Your task to perform on an android device: Check the weather Image 0: 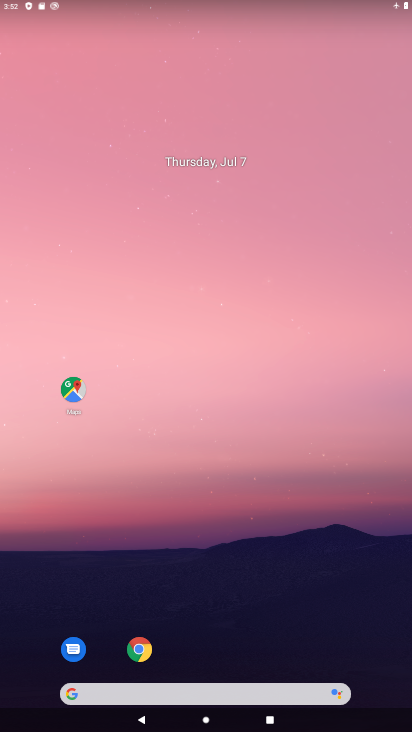
Step 0: drag from (260, 673) to (401, 149)
Your task to perform on an android device: Check the weather Image 1: 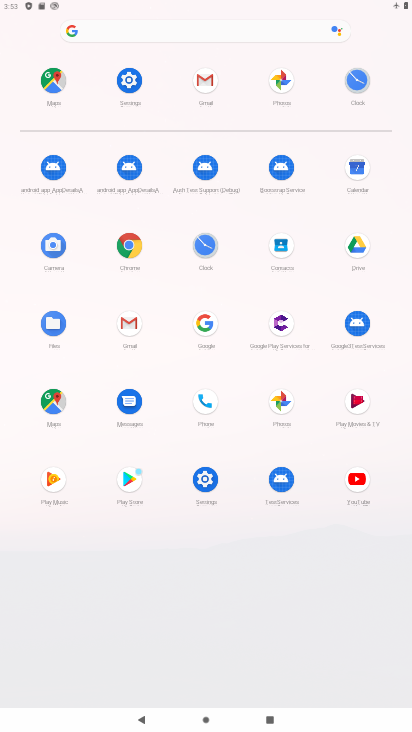
Step 1: click (198, 328)
Your task to perform on an android device: Check the weather Image 2: 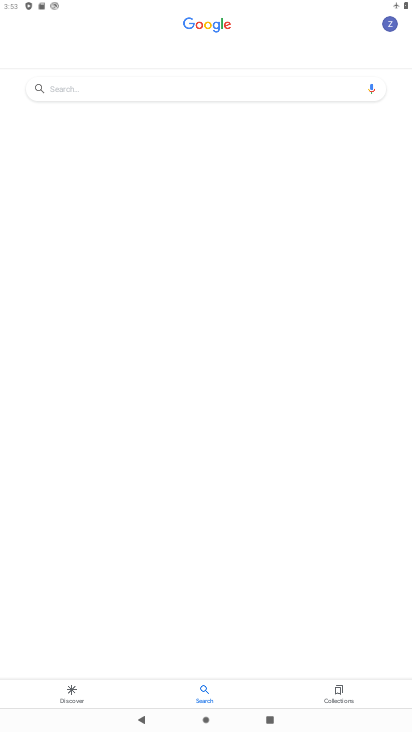
Step 2: click (189, 86)
Your task to perform on an android device: Check the weather Image 3: 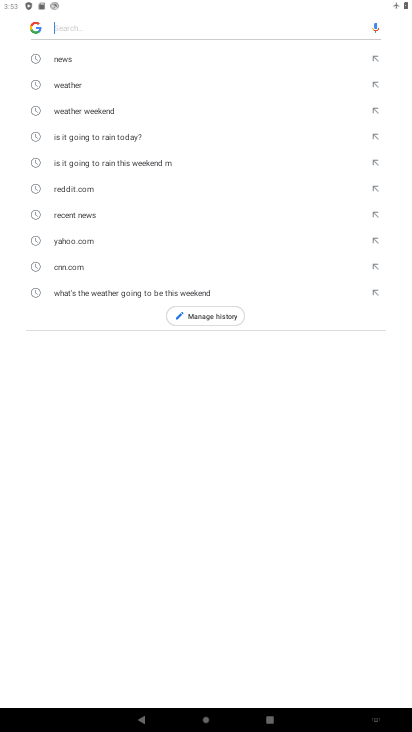
Step 3: type "weather"
Your task to perform on an android device: Check the weather Image 4: 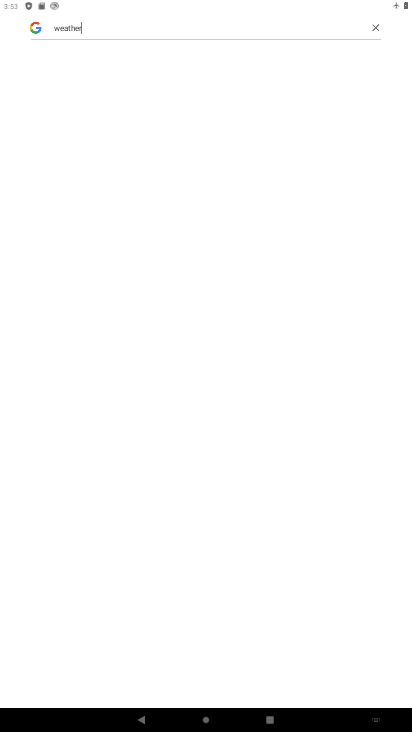
Step 4: task complete